Your task to perform on an android device: add a label to a message in the gmail app Image 0: 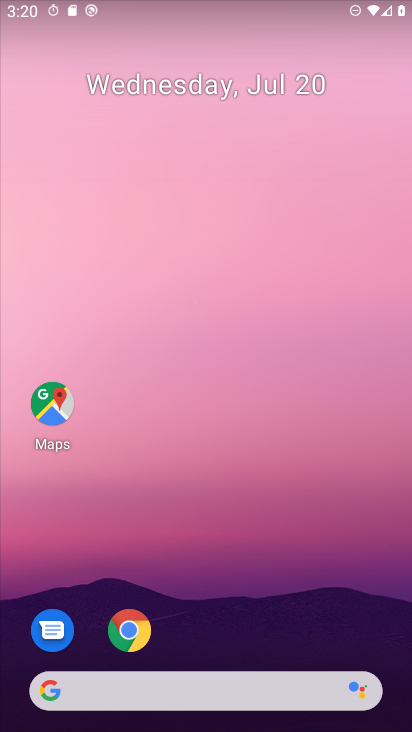
Step 0: drag from (306, 727) to (295, 173)
Your task to perform on an android device: add a label to a message in the gmail app Image 1: 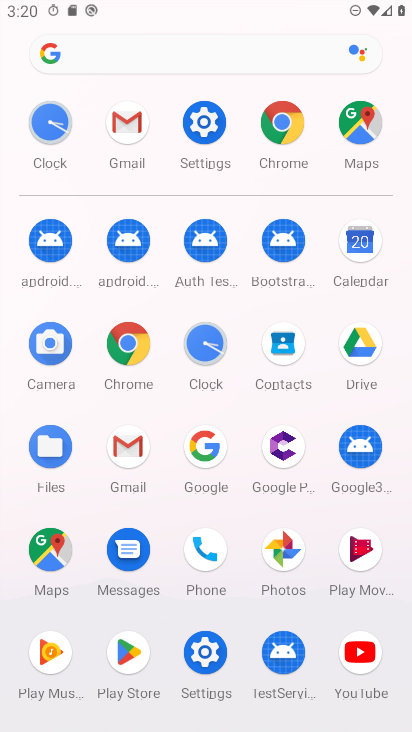
Step 1: click (125, 457)
Your task to perform on an android device: add a label to a message in the gmail app Image 2: 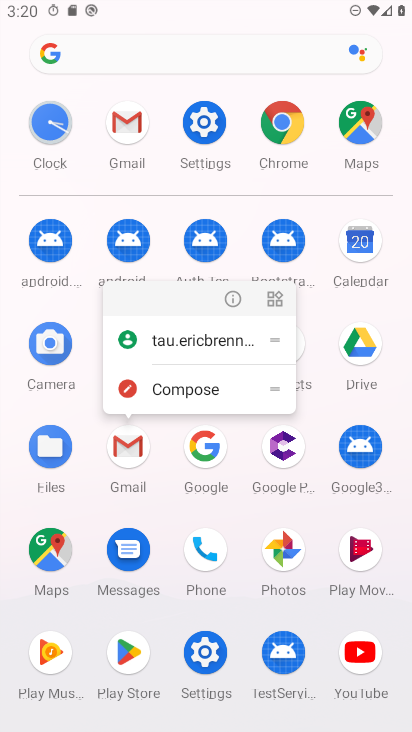
Step 2: click (131, 444)
Your task to perform on an android device: add a label to a message in the gmail app Image 3: 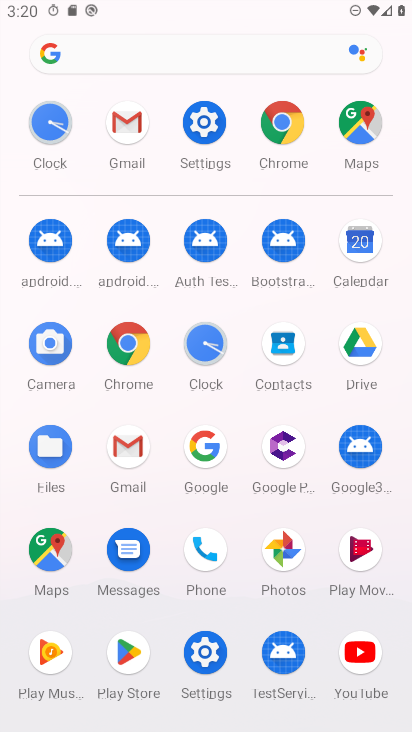
Step 3: click (131, 444)
Your task to perform on an android device: add a label to a message in the gmail app Image 4: 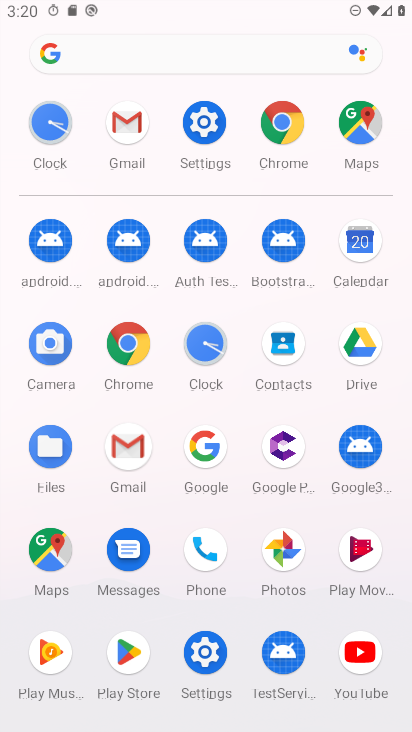
Step 4: click (131, 444)
Your task to perform on an android device: add a label to a message in the gmail app Image 5: 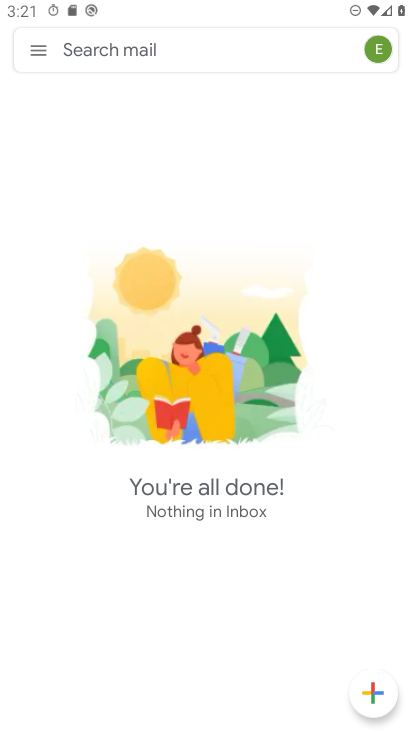
Step 5: click (39, 43)
Your task to perform on an android device: add a label to a message in the gmail app Image 6: 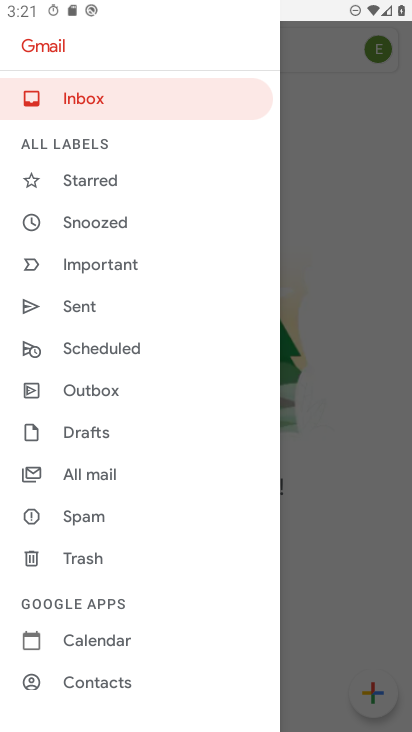
Step 6: drag from (114, 488) to (113, 231)
Your task to perform on an android device: add a label to a message in the gmail app Image 7: 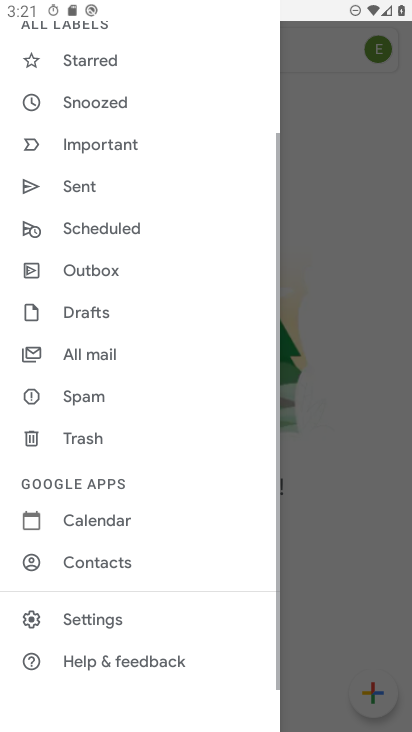
Step 7: drag from (113, 479) to (126, 320)
Your task to perform on an android device: add a label to a message in the gmail app Image 8: 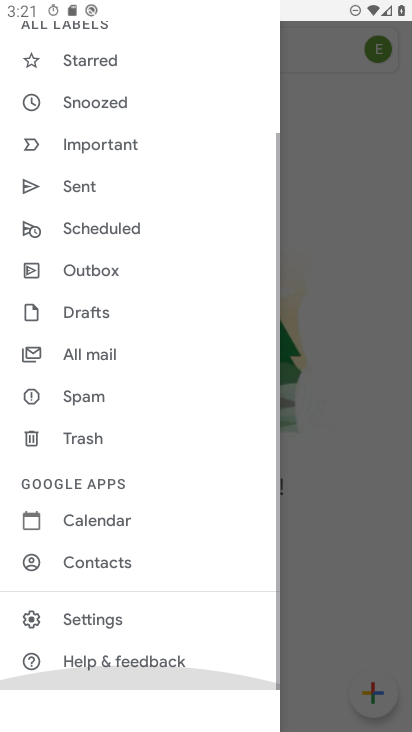
Step 8: drag from (122, 544) to (122, 336)
Your task to perform on an android device: add a label to a message in the gmail app Image 9: 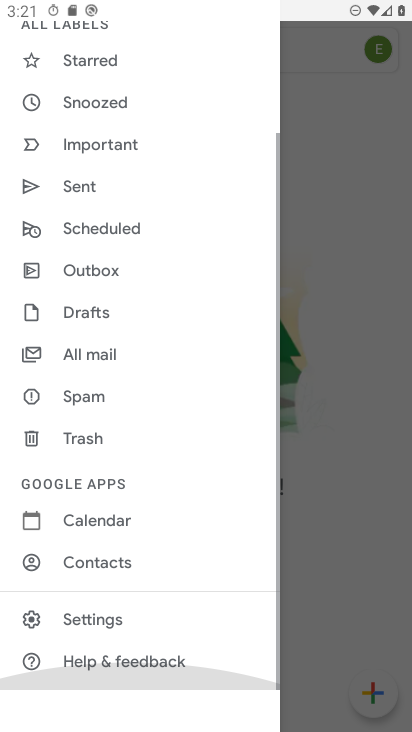
Step 9: drag from (95, 515) to (151, 307)
Your task to perform on an android device: add a label to a message in the gmail app Image 10: 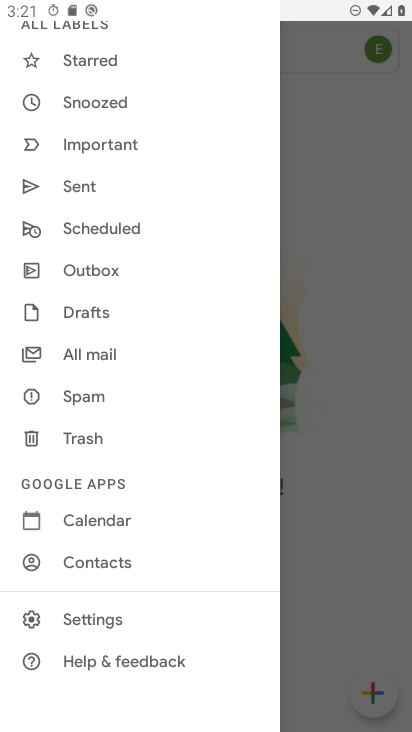
Step 10: click (89, 622)
Your task to perform on an android device: add a label to a message in the gmail app Image 11: 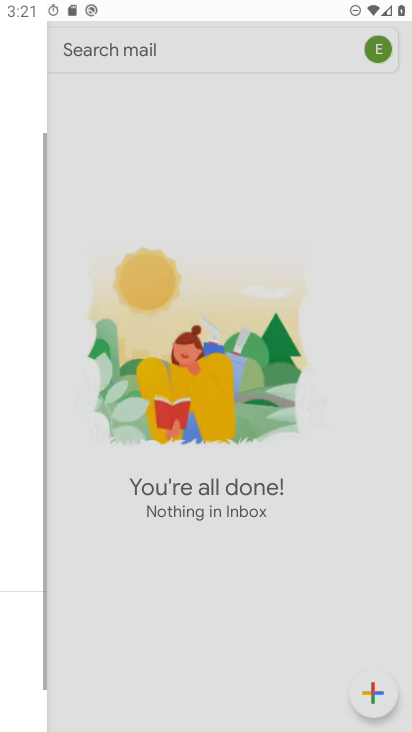
Step 11: click (89, 622)
Your task to perform on an android device: add a label to a message in the gmail app Image 12: 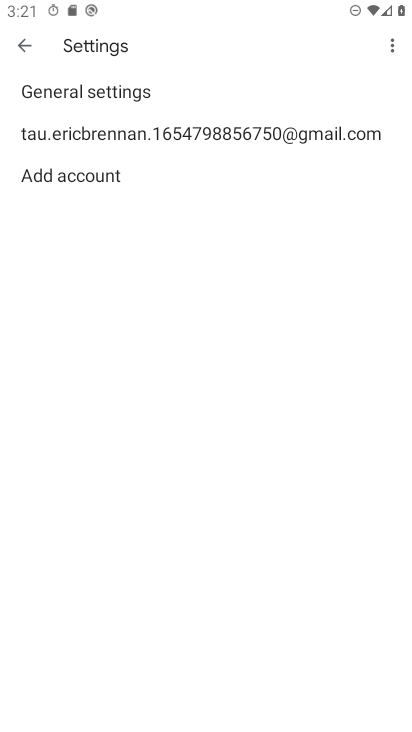
Step 12: click (21, 34)
Your task to perform on an android device: add a label to a message in the gmail app Image 13: 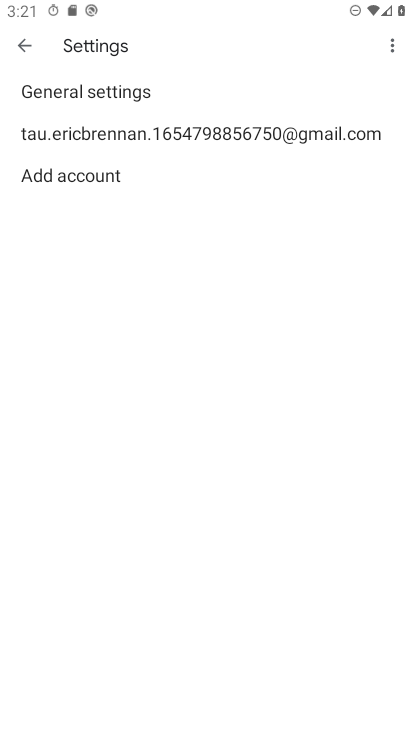
Step 13: click (22, 35)
Your task to perform on an android device: add a label to a message in the gmail app Image 14: 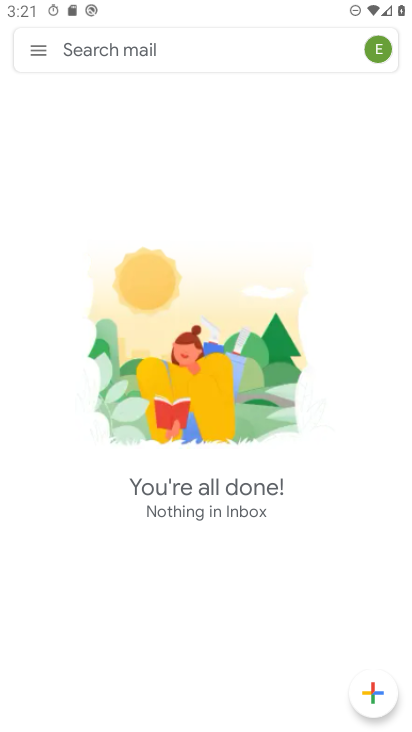
Step 14: drag from (46, 49) to (69, 418)
Your task to perform on an android device: add a label to a message in the gmail app Image 15: 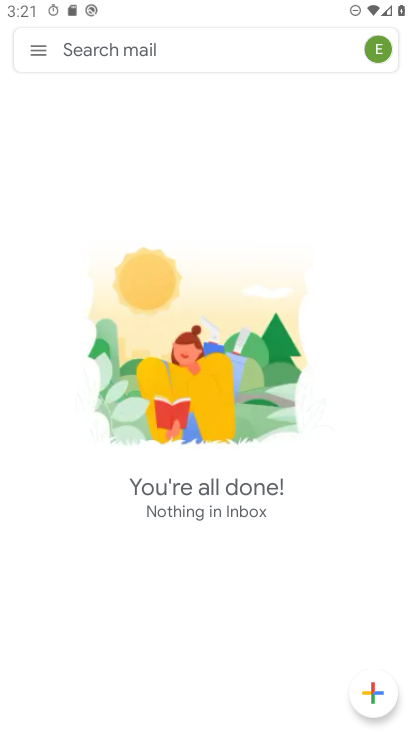
Step 15: drag from (38, 53) to (47, 129)
Your task to perform on an android device: add a label to a message in the gmail app Image 16: 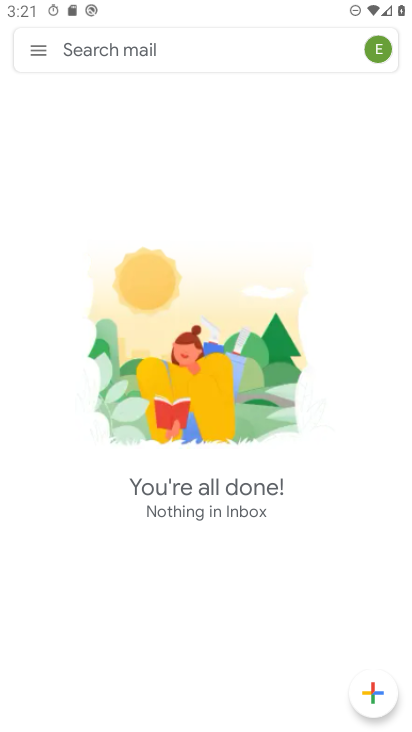
Step 16: click (43, 59)
Your task to perform on an android device: add a label to a message in the gmail app Image 17: 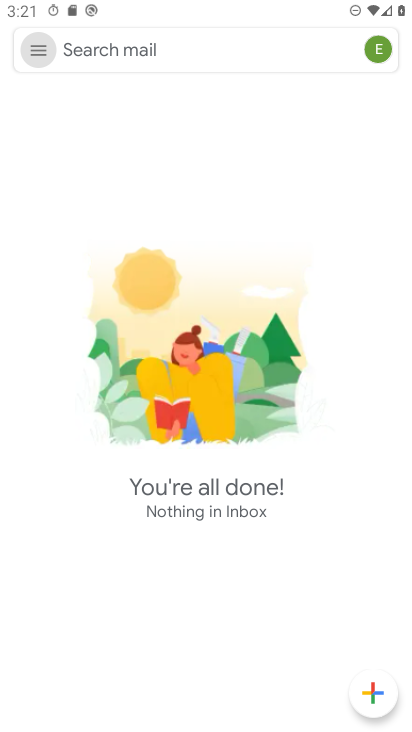
Step 17: click (43, 59)
Your task to perform on an android device: add a label to a message in the gmail app Image 18: 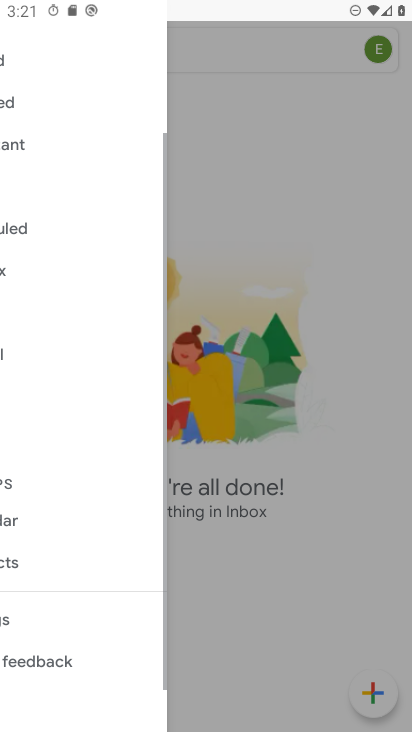
Step 18: click (39, 49)
Your task to perform on an android device: add a label to a message in the gmail app Image 19: 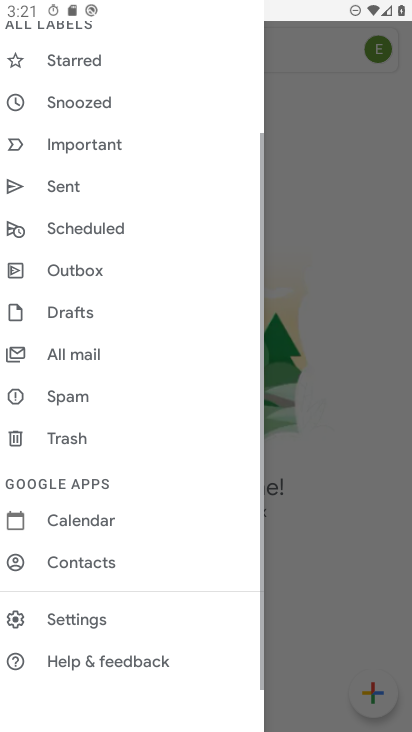
Step 19: click (39, 49)
Your task to perform on an android device: add a label to a message in the gmail app Image 20: 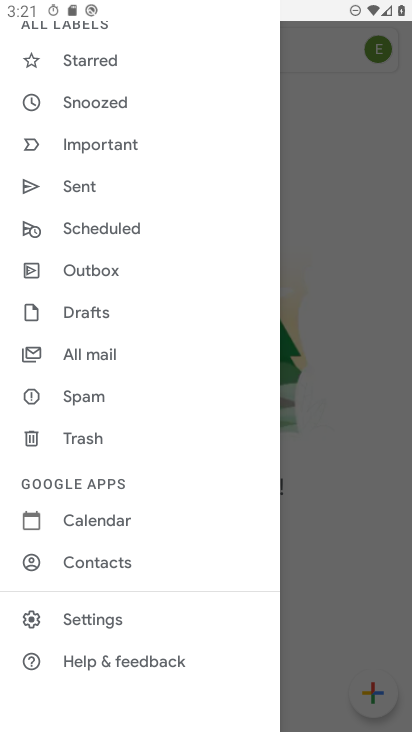
Step 20: click (80, 361)
Your task to perform on an android device: add a label to a message in the gmail app Image 21: 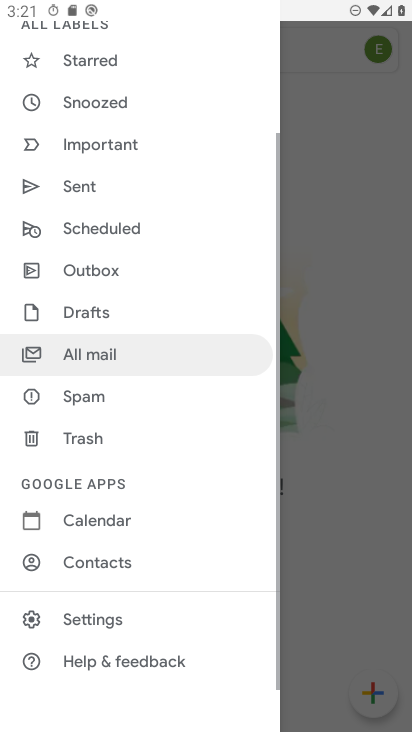
Step 21: click (80, 361)
Your task to perform on an android device: add a label to a message in the gmail app Image 22: 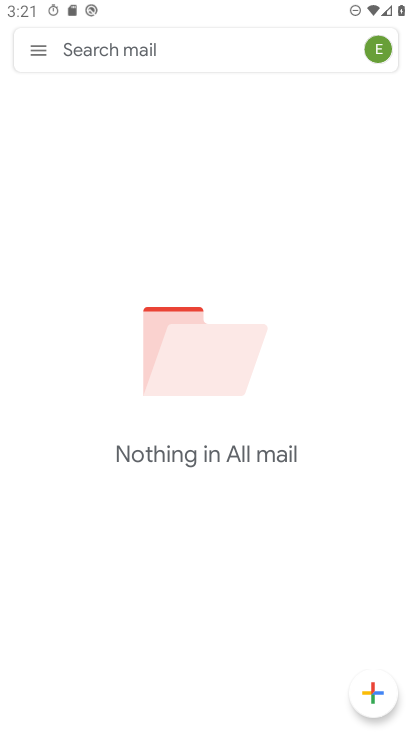
Step 22: task complete